Your task to perform on an android device: Open Google Maps and go to "Timeline" Image 0: 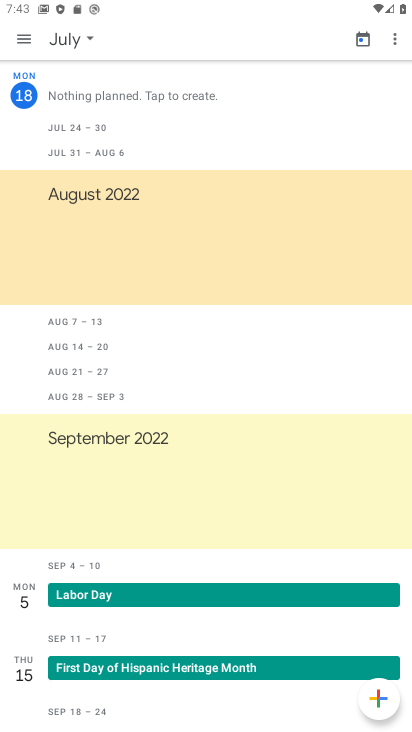
Step 0: press home button
Your task to perform on an android device: Open Google Maps and go to "Timeline" Image 1: 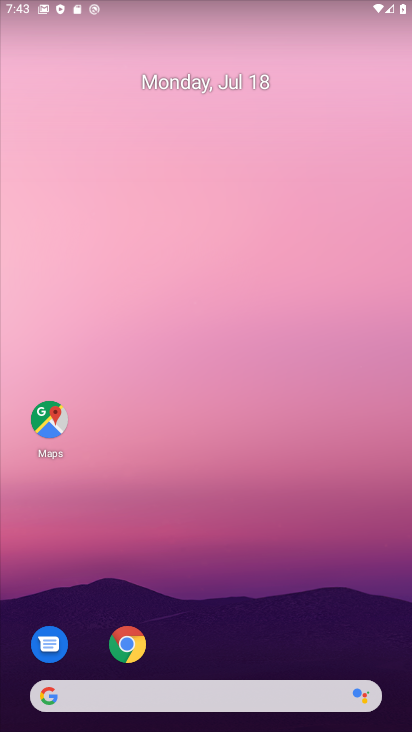
Step 1: drag from (222, 645) to (201, 92)
Your task to perform on an android device: Open Google Maps and go to "Timeline" Image 2: 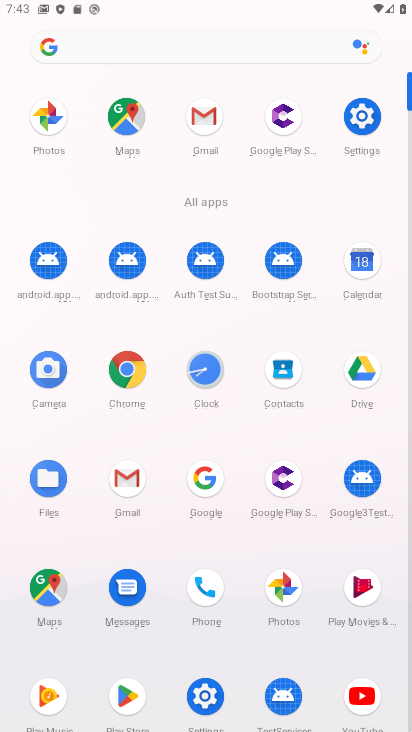
Step 2: click (56, 578)
Your task to perform on an android device: Open Google Maps and go to "Timeline" Image 3: 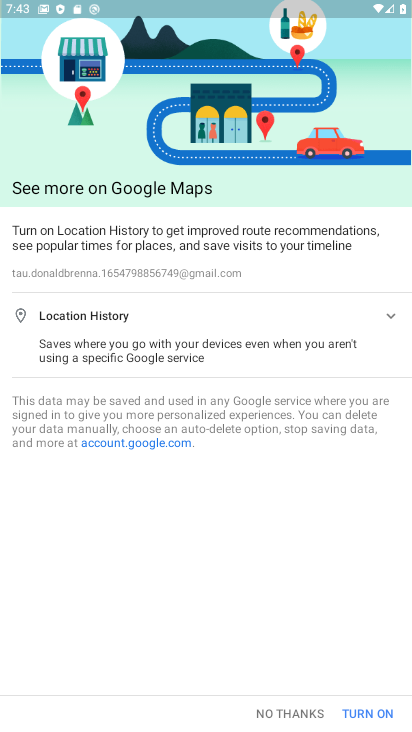
Step 3: click (299, 713)
Your task to perform on an android device: Open Google Maps and go to "Timeline" Image 4: 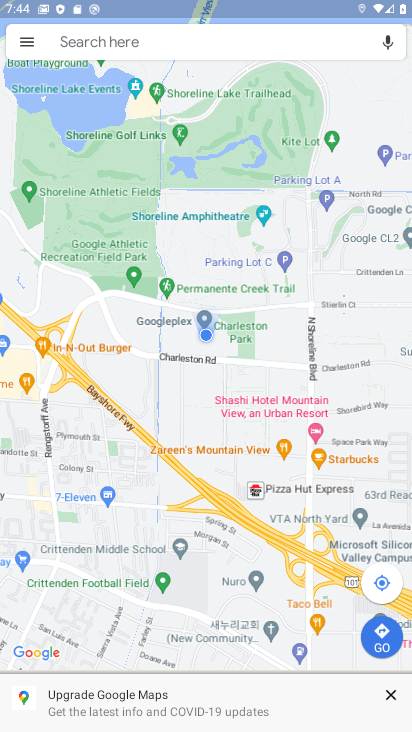
Step 4: click (28, 54)
Your task to perform on an android device: Open Google Maps and go to "Timeline" Image 5: 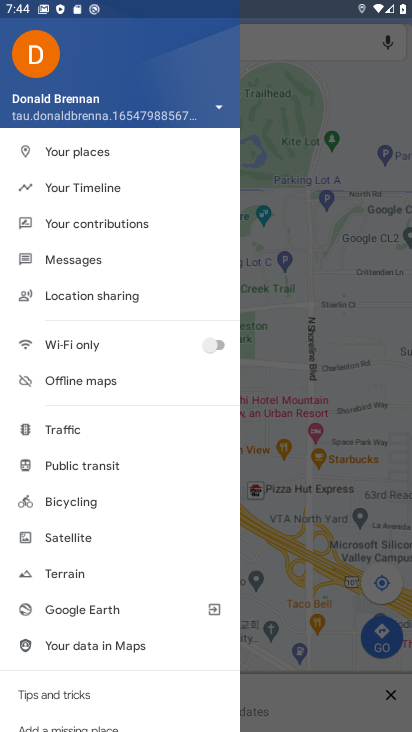
Step 5: click (70, 188)
Your task to perform on an android device: Open Google Maps and go to "Timeline" Image 6: 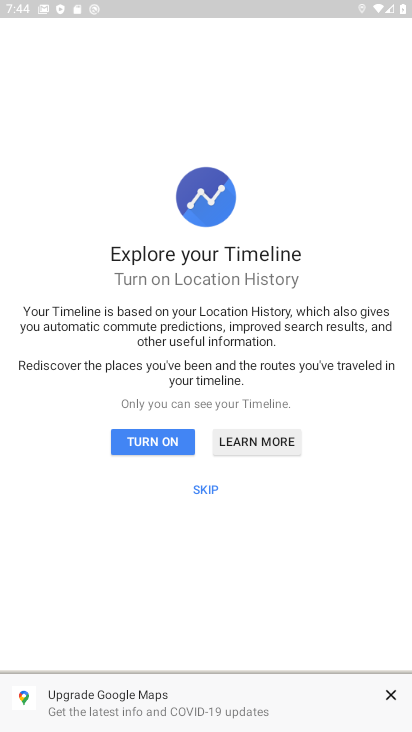
Step 6: click (197, 488)
Your task to perform on an android device: Open Google Maps and go to "Timeline" Image 7: 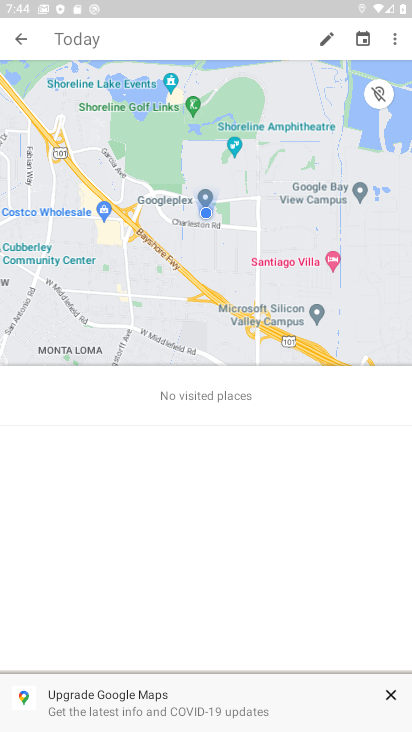
Step 7: task complete